Your task to perform on an android device: Open Google Maps and go to "Timeline" Image 0: 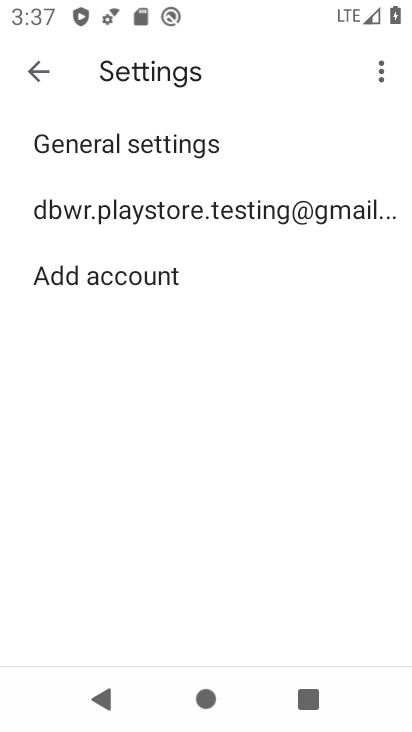
Step 0: press home button
Your task to perform on an android device: Open Google Maps and go to "Timeline" Image 1: 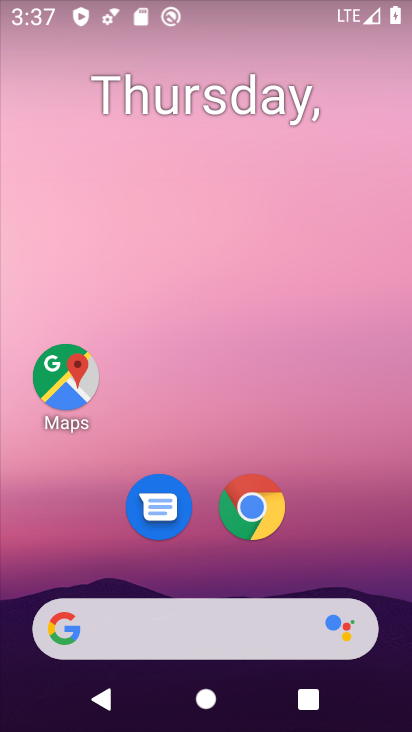
Step 1: click (75, 385)
Your task to perform on an android device: Open Google Maps and go to "Timeline" Image 2: 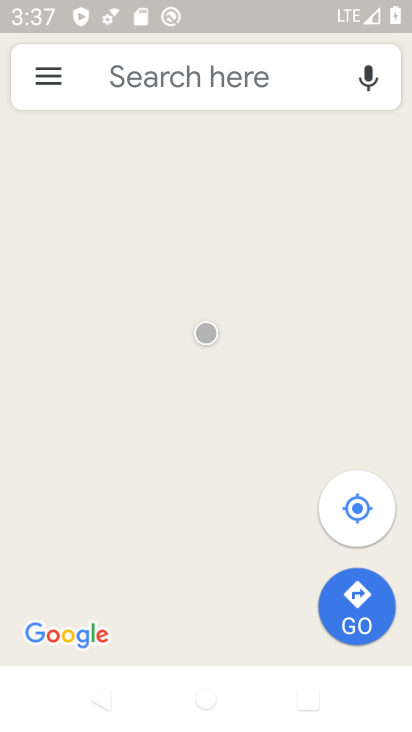
Step 2: click (45, 79)
Your task to perform on an android device: Open Google Maps and go to "Timeline" Image 3: 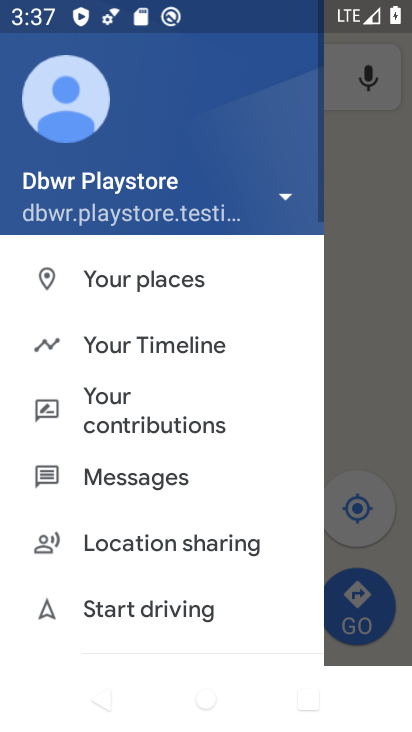
Step 3: click (53, 274)
Your task to perform on an android device: Open Google Maps and go to "Timeline" Image 4: 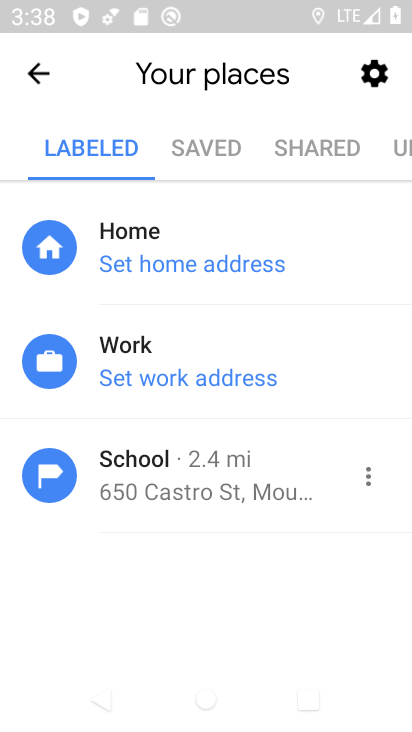
Step 4: press back button
Your task to perform on an android device: Open Google Maps and go to "Timeline" Image 5: 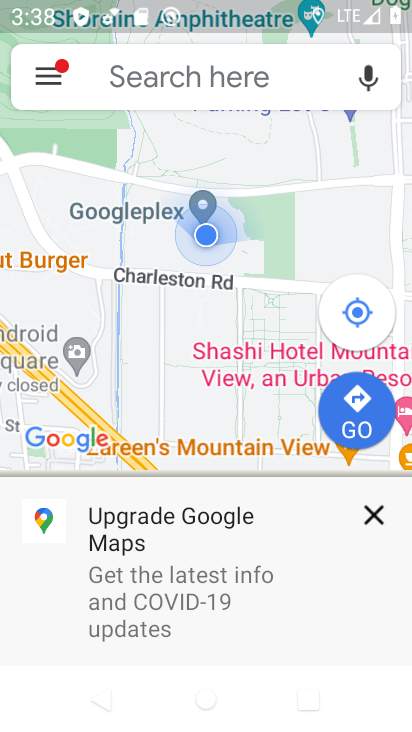
Step 5: click (52, 76)
Your task to perform on an android device: Open Google Maps and go to "Timeline" Image 6: 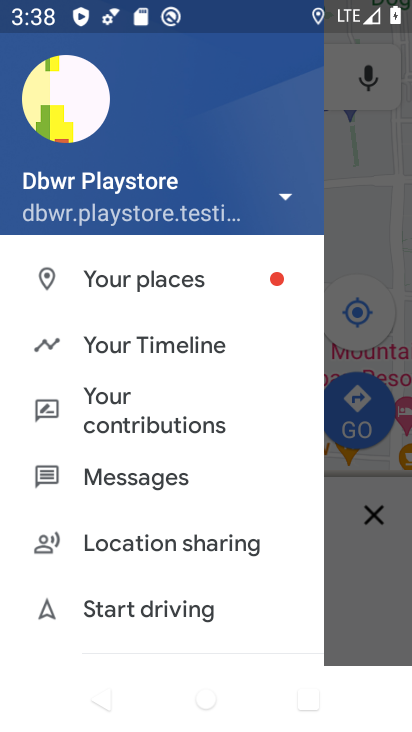
Step 6: click (105, 339)
Your task to perform on an android device: Open Google Maps and go to "Timeline" Image 7: 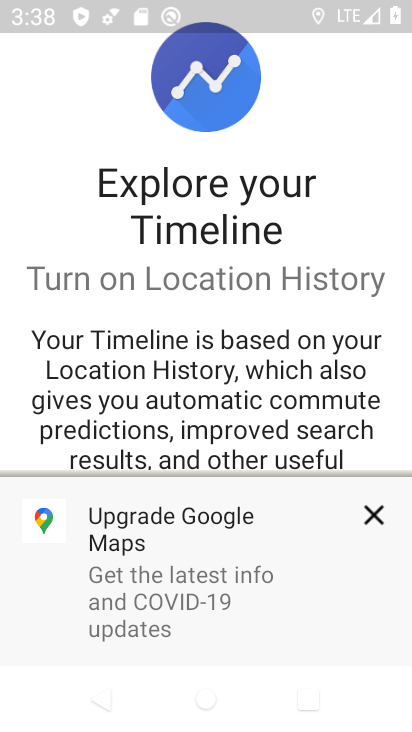
Step 7: click (383, 510)
Your task to perform on an android device: Open Google Maps and go to "Timeline" Image 8: 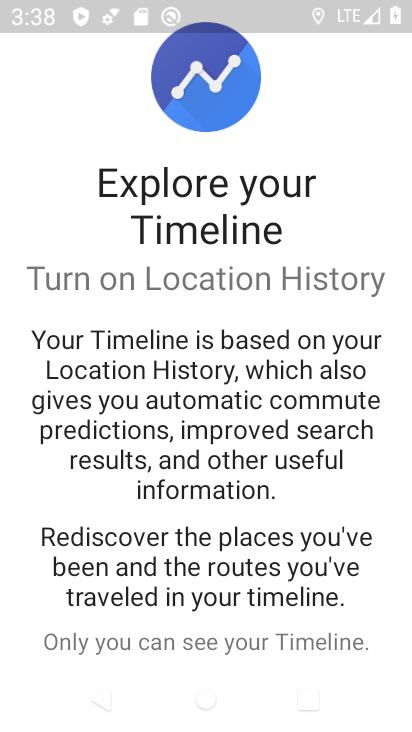
Step 8: drag from (348, 538) to (344, 216)
Your task to perform on an android device: Open Google Maps and go to "Timeline" Image 9: 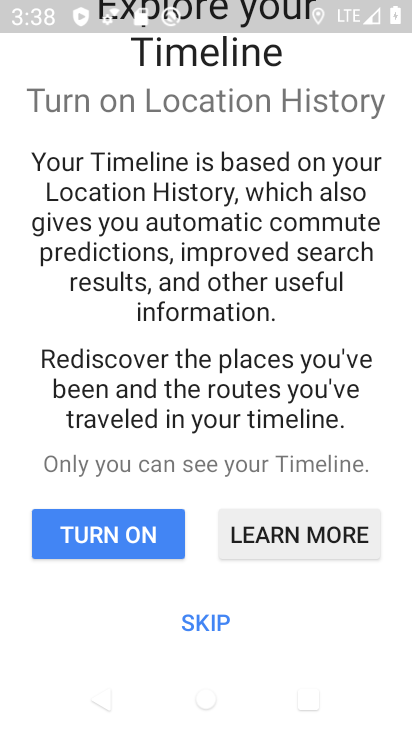
Step 9: click (199, 625)
Your task to perform on an android device: Open Google Maps and go to "Timeline" Image 10: 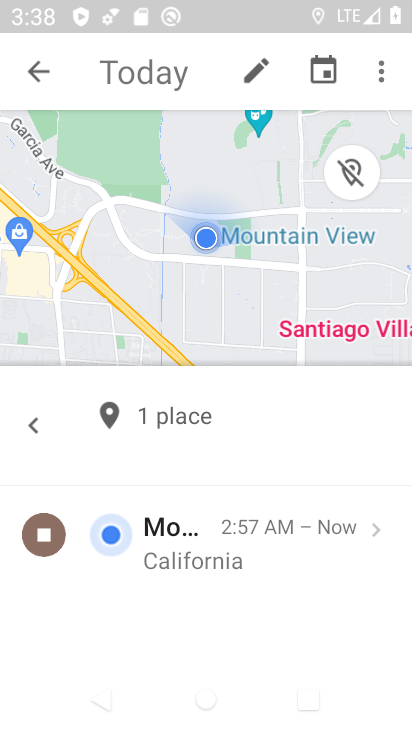
Step 10: task complete